Your task to perform on an android device: check battery use Image 0: 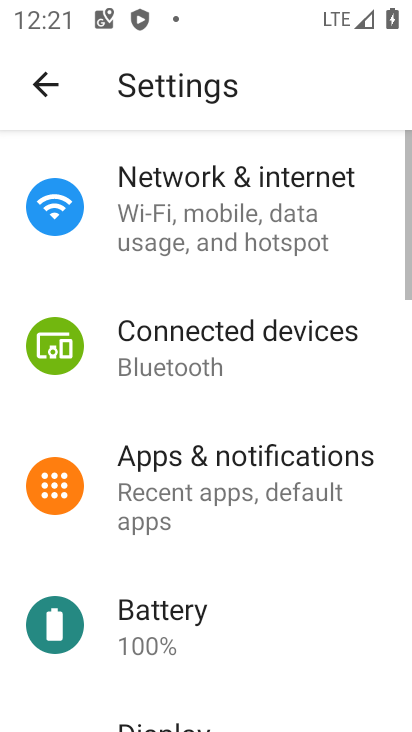
Step 0: press home button
Your task to perform on an android device: check battery use Image 1: 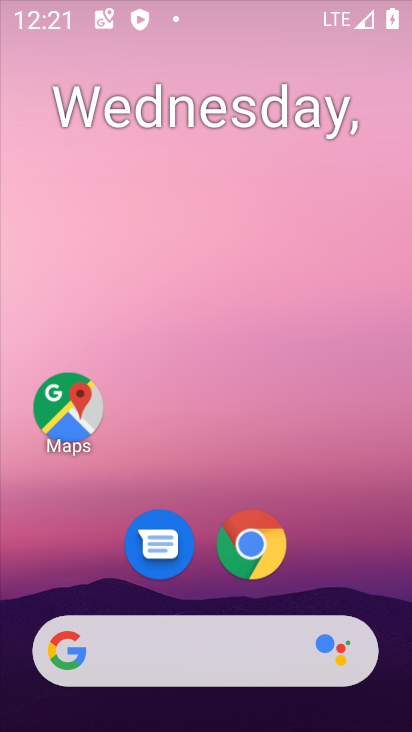
Step 1: drag from (392, 634) to (332, 45)
Your task to perform on an android device: check battery use Image 2: 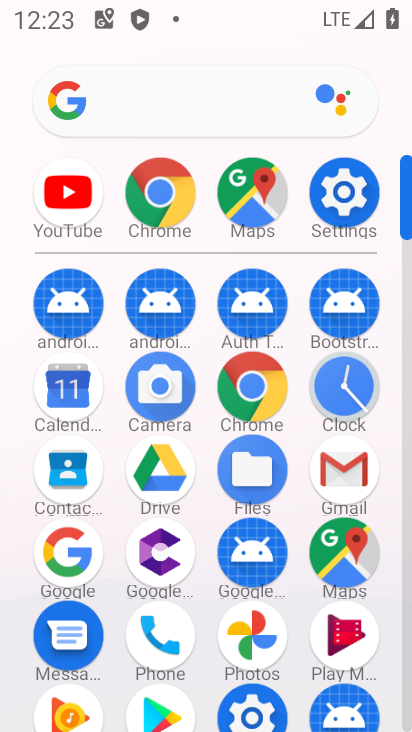
Step 2: click (264, 697)
Your task to perform on an android device: check battery use Image 3: 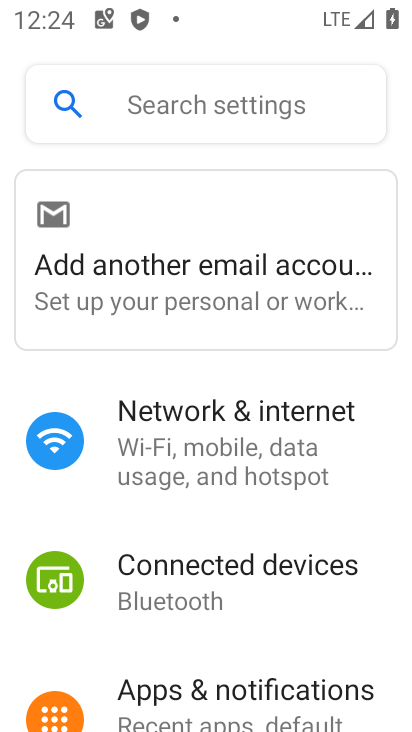
Step 3: drag from (198, 641) to (115, 131)
Your task to perform on an android device: check battery use Image 4: 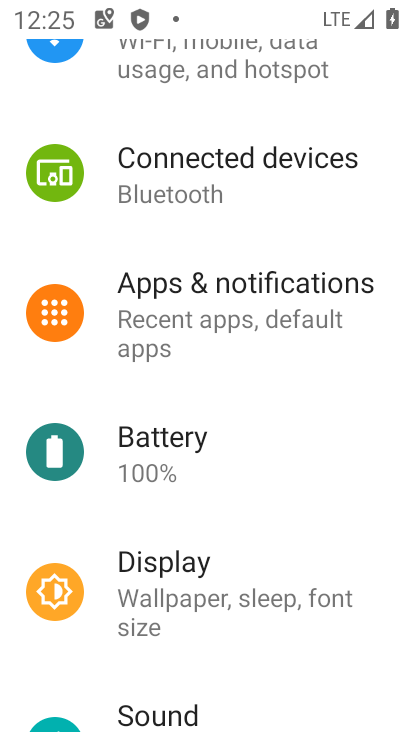
Step 4: drag from (211, 676) to (218, 537)
Your task to perform on an android device: check battery use Image 5: 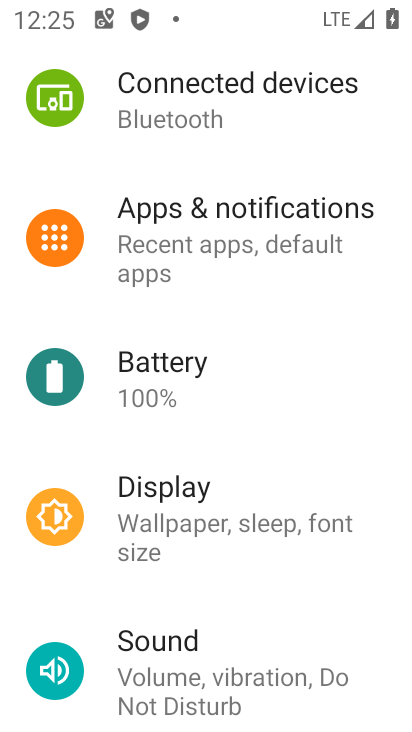
Step 5: click (176, 399)
Your task to perform on an android device: check battery use Image 6: 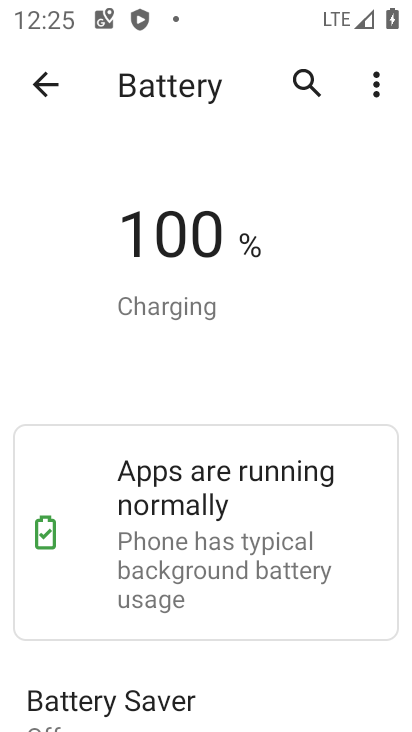
Step 6: task complete